Your task to perform on an android device: Go to Yahoo.com Image 0: 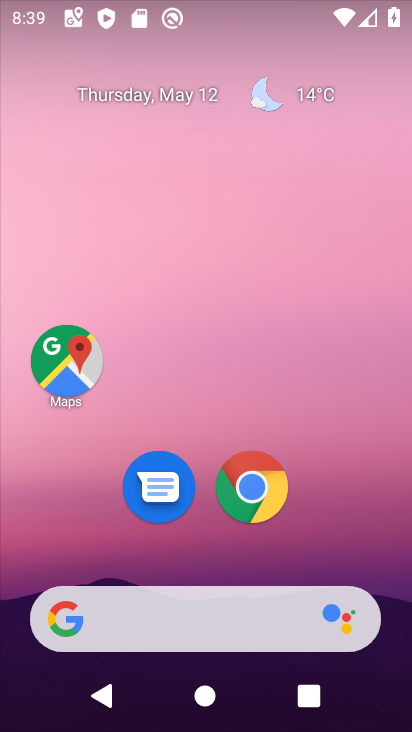
Step 0: press home button
Your task to perform on an android device: Go to Yahoo.com Image 1: 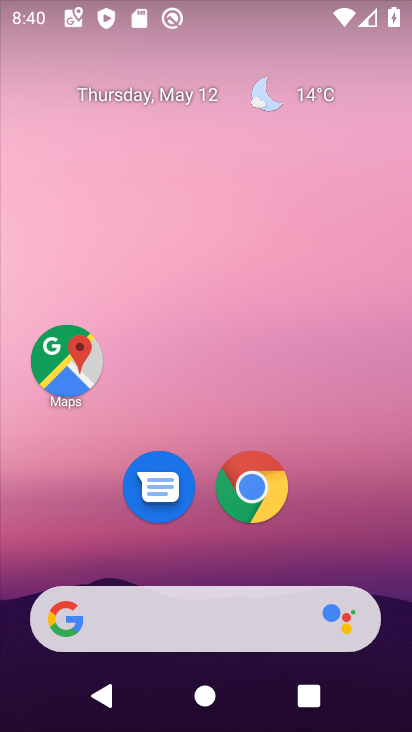
Step 1: click (254, 490)
Your task to perform on an android device: Go to Yahoo.com Image 2: 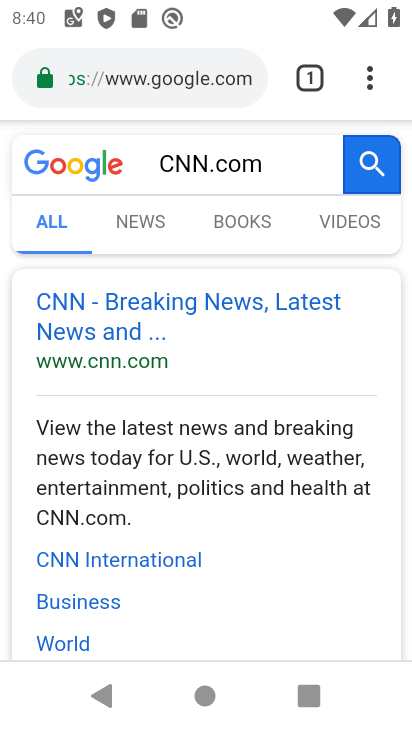
Step 2: click (312, 73)
Your task to perform on an android device: Go to Yahoo.com Image 3: 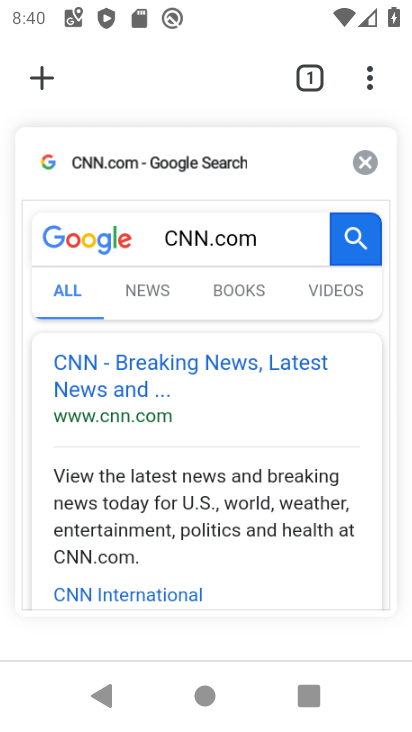
Step 3: click (369, 154)
Your task to perform on an android device: Go to Yahoo.com Image 4: 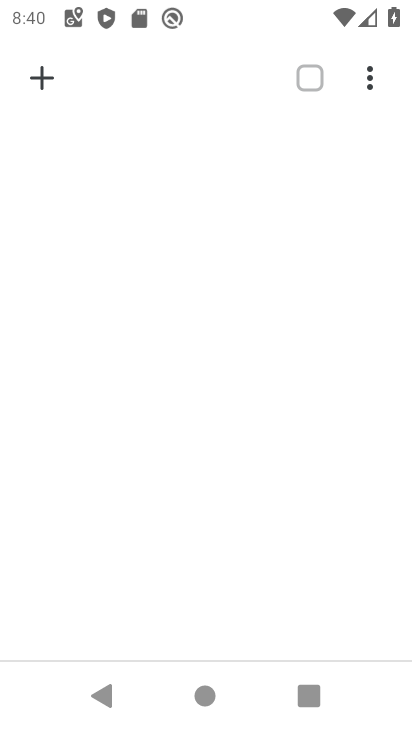
Step 4: click (30, 72)
Your task to perform on an android device: Go to Yahoo.com Image 5: 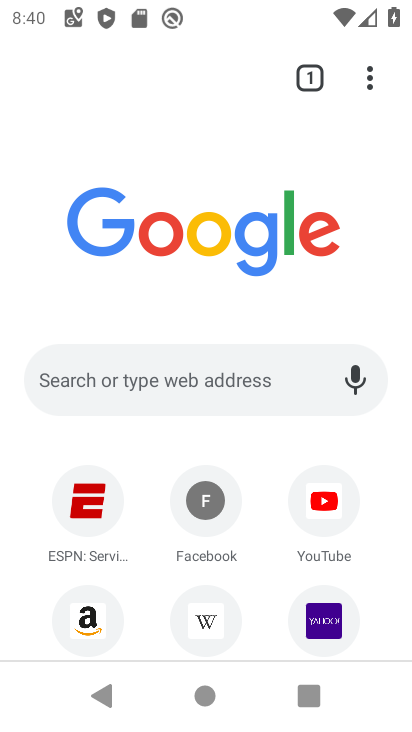
Step 5: click (318, 615)
Your task to perform on an android device: Go to Yahoo.com Image 6: 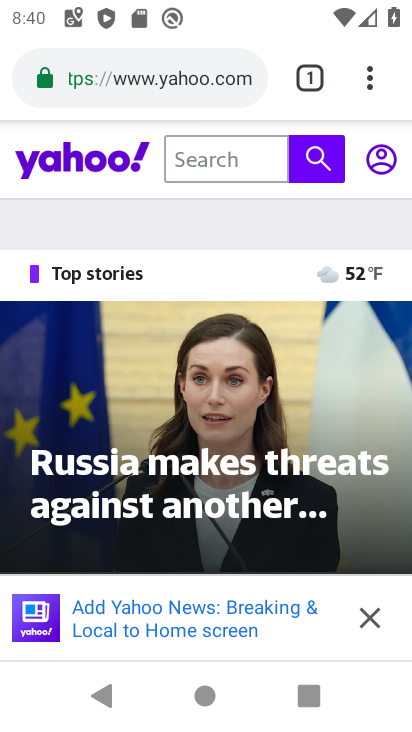
Step 6: task complete